Your task to perform on an android device: clear history in the chrome app Image 0: 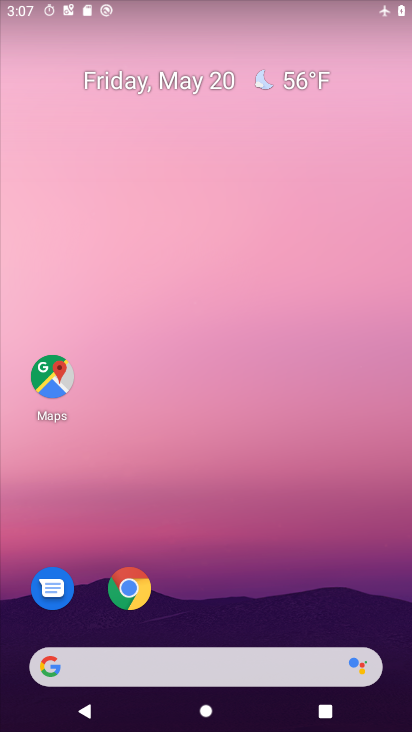
Step 0: click (303, 466)
Your task to perform on an android device: clear history in the chrome app Image 1: 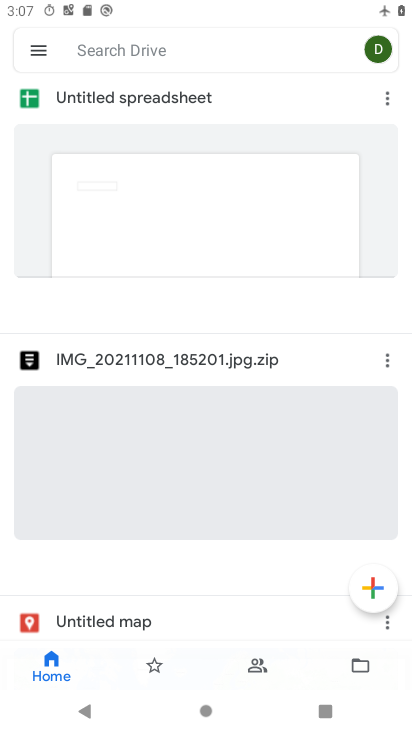
Step 1: drag from (370, 2) to (375, 419)
Your task to perform on an android device: clear history in the chrome app Image 2: 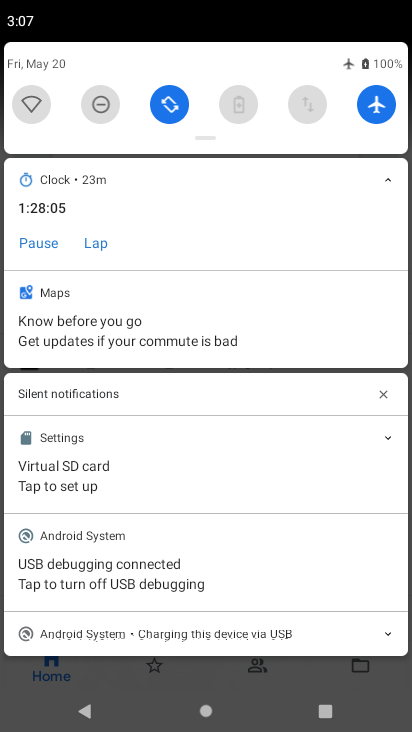
Step 2: click (381, 107)
Your task to perform on an android device: clear history in the chrome app Image 3: 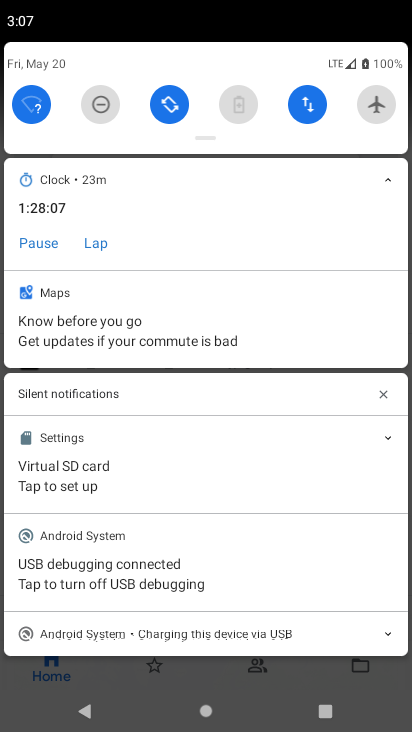
Step 3: press home button
Your task to perform on an android device: clear history in the chrome app Image 4: 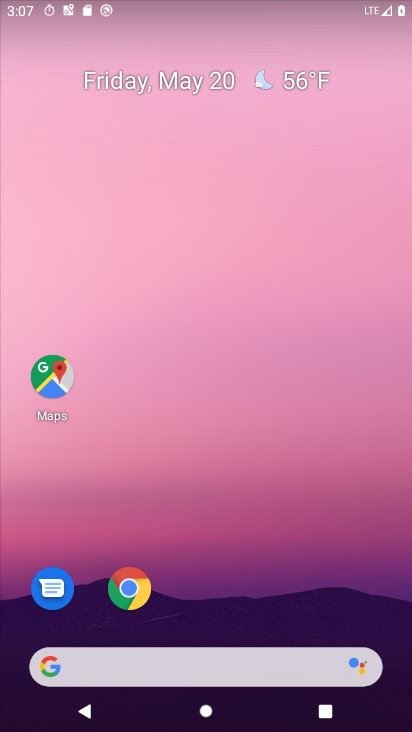
Step 4: click (132, 588)
Your task to perform on an android device: clear history in the chrome app Image 5: 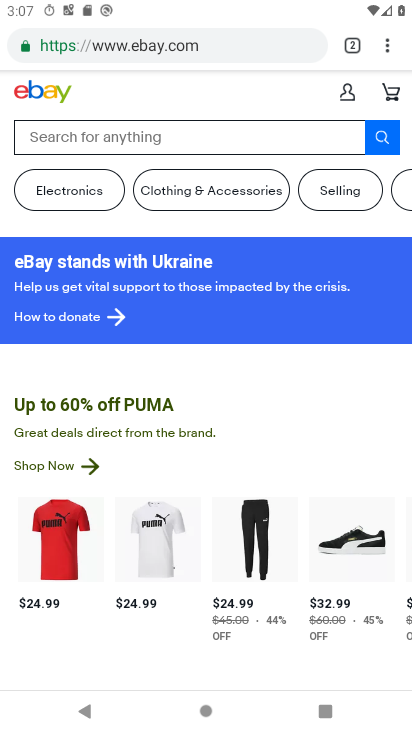
Step 5: click (386, 48)
Your task to perform on an android device: clear history in the chrome app Image 6: 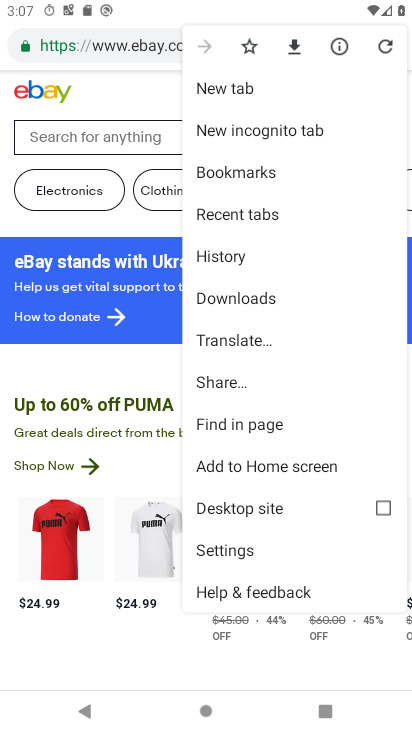
Step 6: click (248, 257)
Your task to perform on an android device: clear history in the chrome app Image 7: 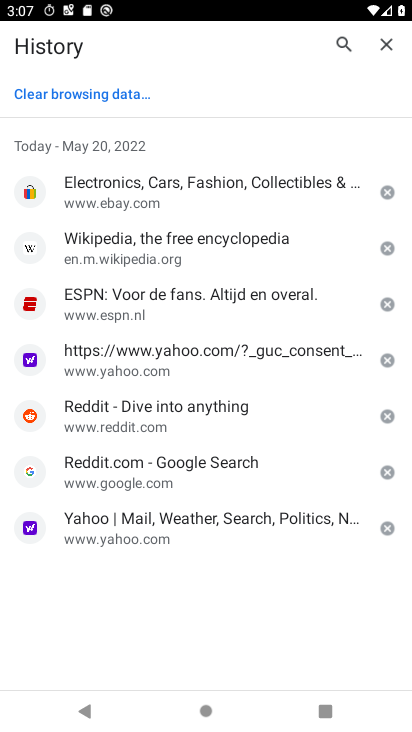
Step 7: click (99, 92)
Your task to perform on an android device: clear history in the chrome app Image 8: 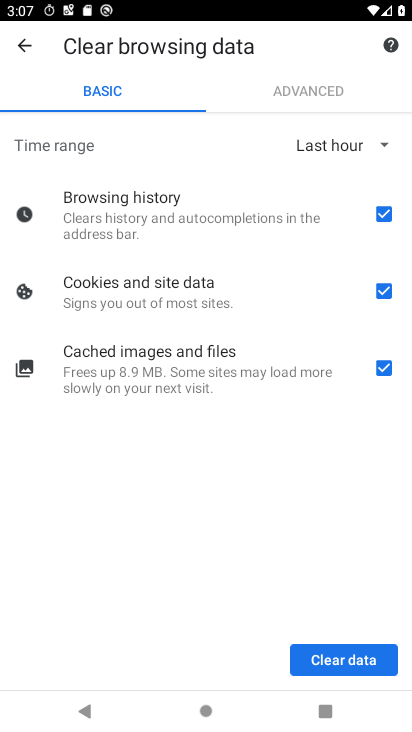
Step 8: click (353, 647)
Your task to perform on an android device: clear history in the chrome app Image 9: 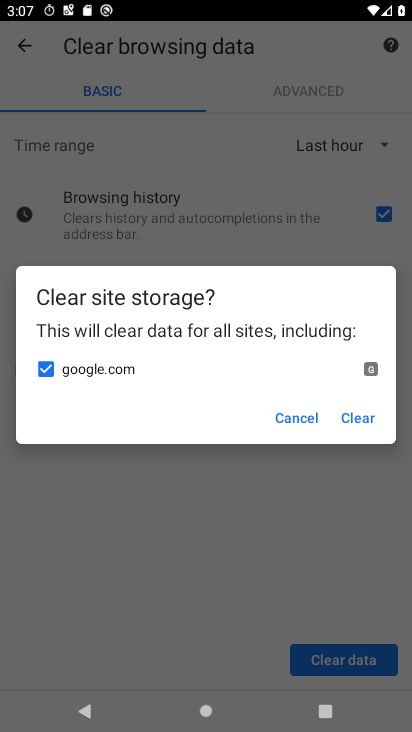
Step 9: click (355, 417)
Your task to perform on an android device: clear history in the chrome app Image 10: 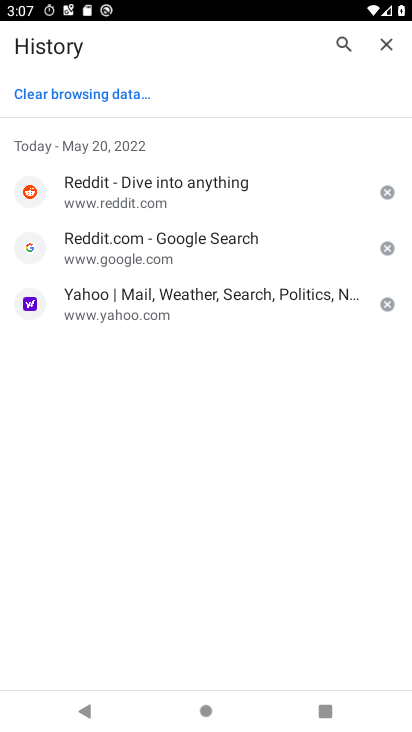
Step 10: task complete